Your task to perform on an android device: turn notification dots off Image 0: 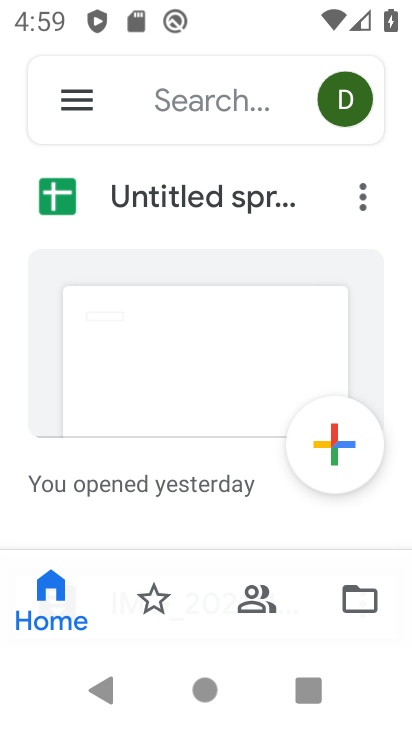
Step 0: press back button
Your task to perform on an android device: turn notification dots off Image 1: 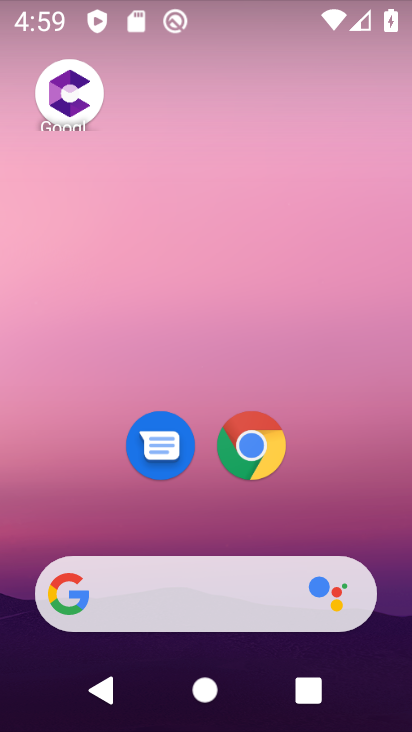
Step 1: drag from (286, 698) to (150, 46)
Your task to perform on an android device: turn notification dots off Image 2: 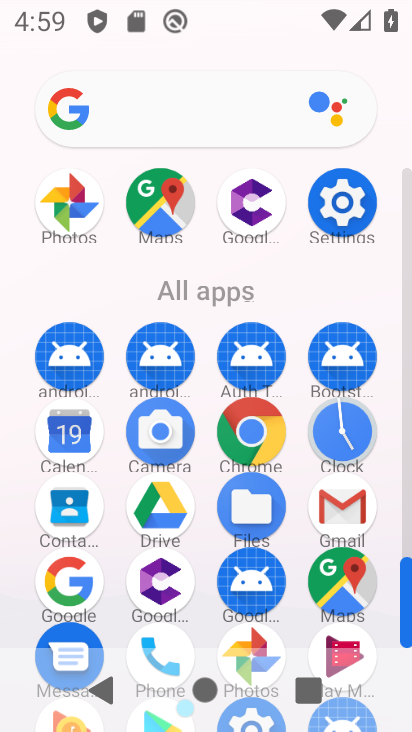
Step 2: click (347, 207)
Your task to perform on an android device: turn notification dots off Image 3: 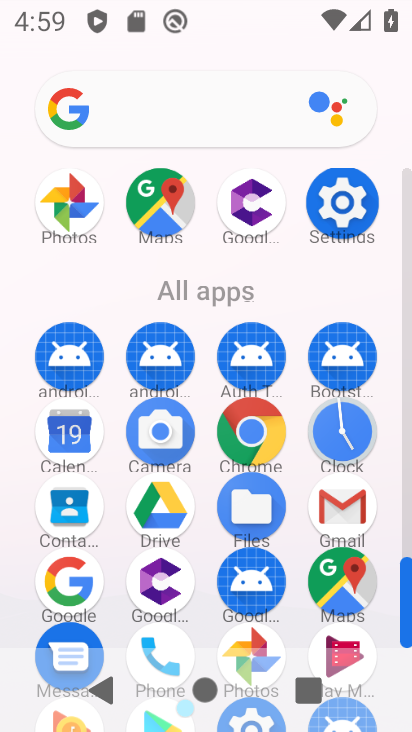
Step 3: click (347, 207)
Your task to perform on an android device: turn notification dots off Image 4: 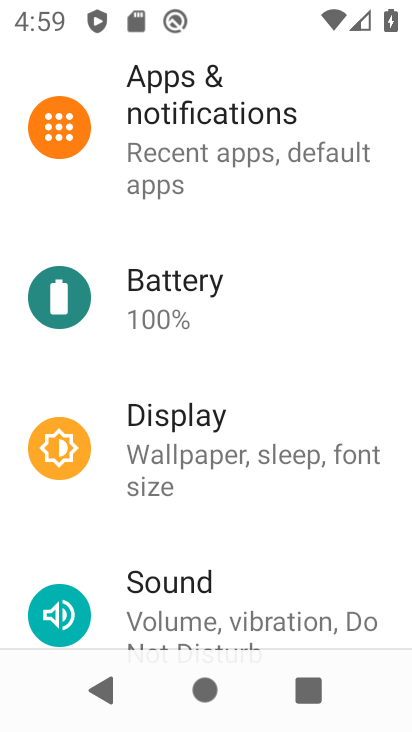
Step 4: click (346, 208)
Your task to perform on an android device: turn notification dots off Image 5: 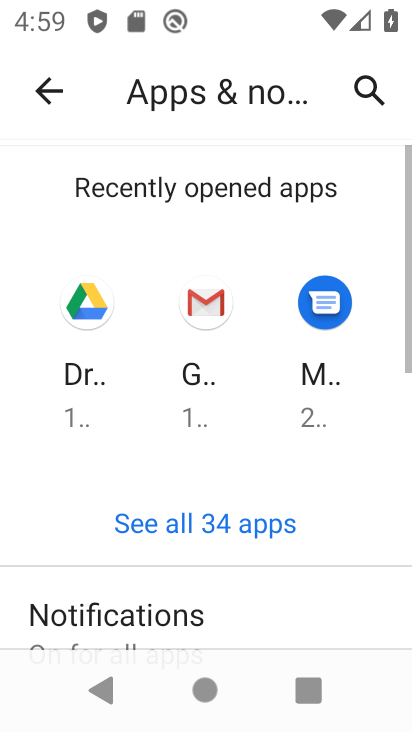
Step 5: click (47, 89)
Your task to perform on an android device: turn notification dots off Image 6: 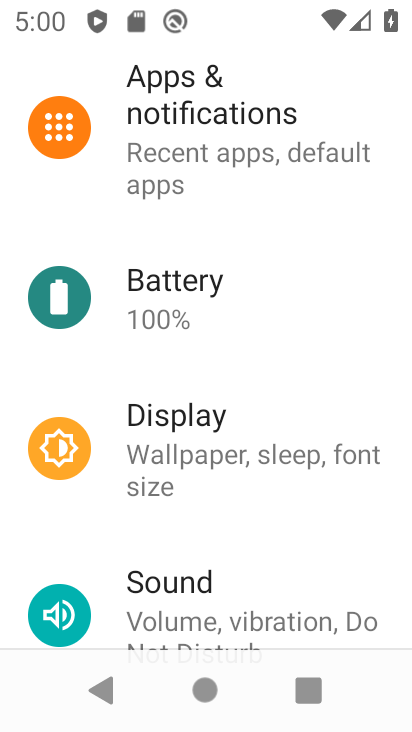
Step 6: drag from (177, 122) to (206, 656)
Your task to perform on an android device: turn notification dots off Image 7: 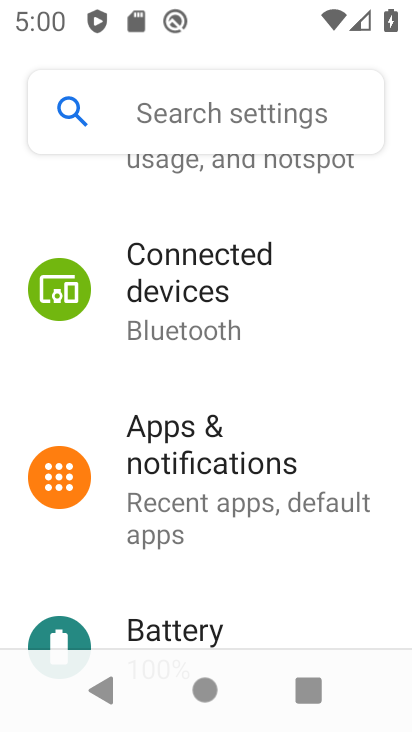
Step 7: click (184, 499)
Your task to perform on an android device: turn notification dots off Image 8: 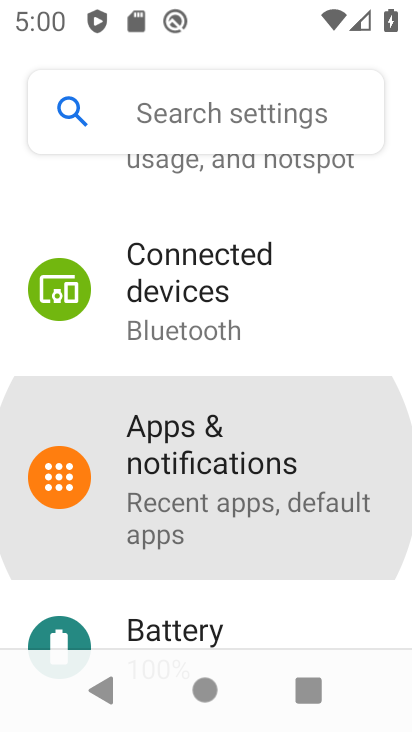
Step 8: click (184, 499)
Your task to perform on an android device: turn notification dots off Image 9: 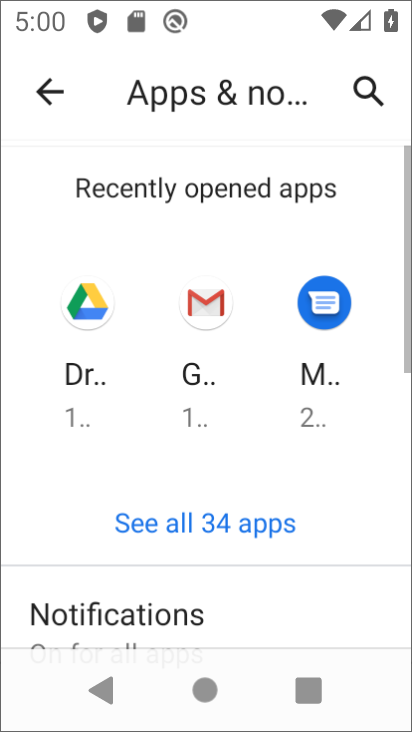
Step 9: click (184, 478)
Your task to perform on an android device: turn notification dots off Image 10: 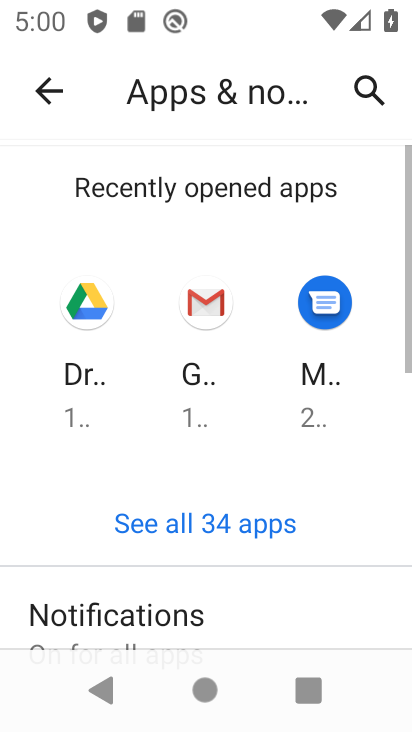
Step 10: drag from (144, 486) to (96, 122)
Your task to perform on an android device: turn notification dots off Image 11: 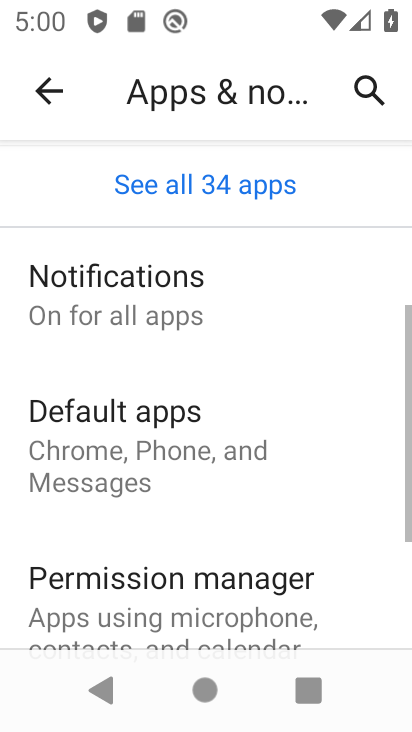
Step 11: drag from (126, 434) to (100, 75)
Your task to perform on an android device: turn notification dots off Image 12: 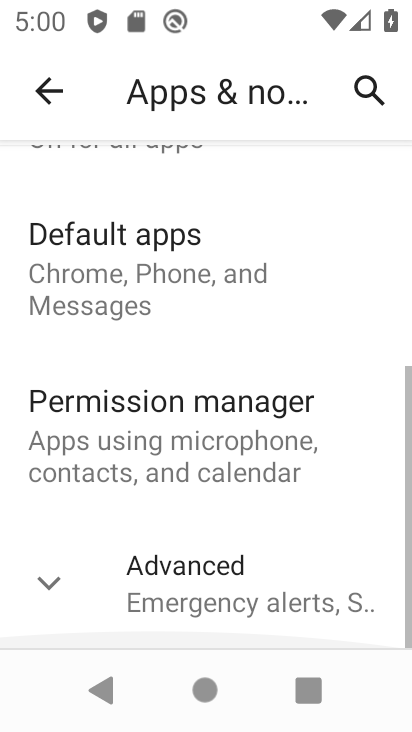
Step 12: drag from (159, 514) to (129, 198)
Your task to perform on an android device: turn notification dots off Image 13: 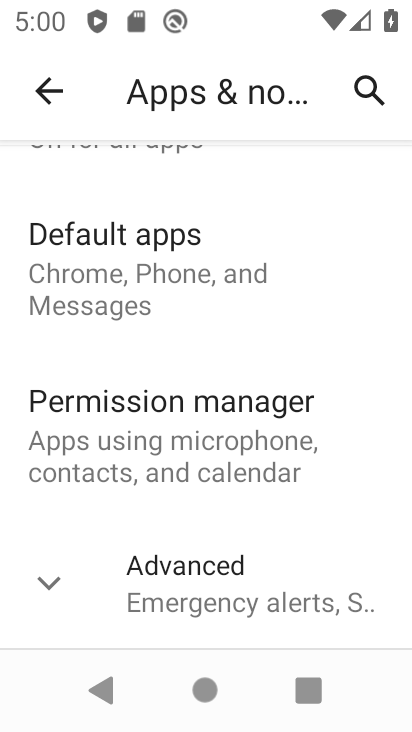
Step 13: drag from (187, 326) to (223, 523)
Your task to perform on an android device: turn notification dots off Image 14: 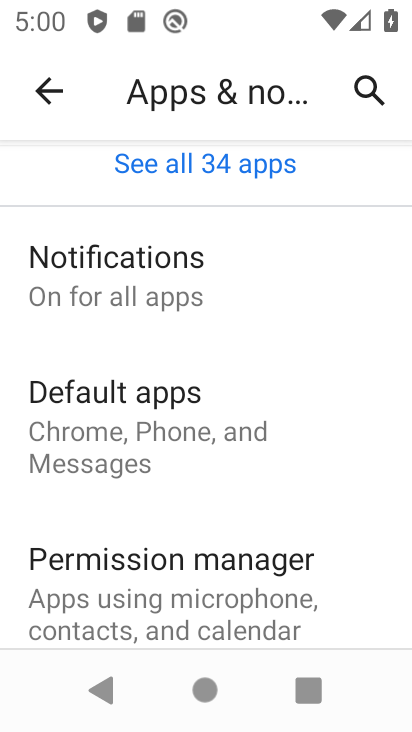
Step 14: click (119, 291)
Your task to perform on an android device: turn notification dots off Image 15: 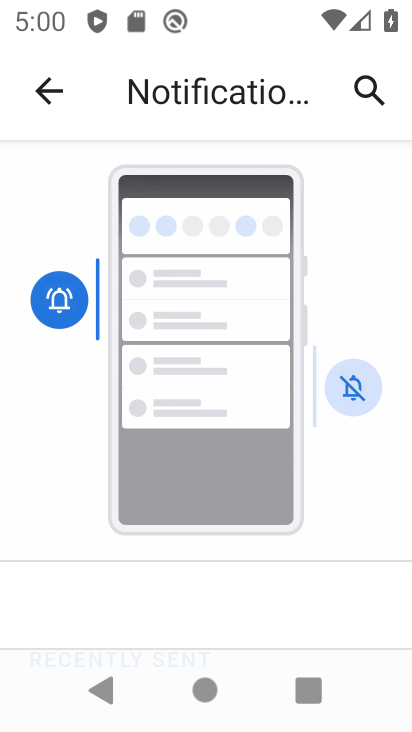
Step 15: drag from (217, 479) to (141, 95)
Your task to perform on an android device: turn notification dots off Image 16: 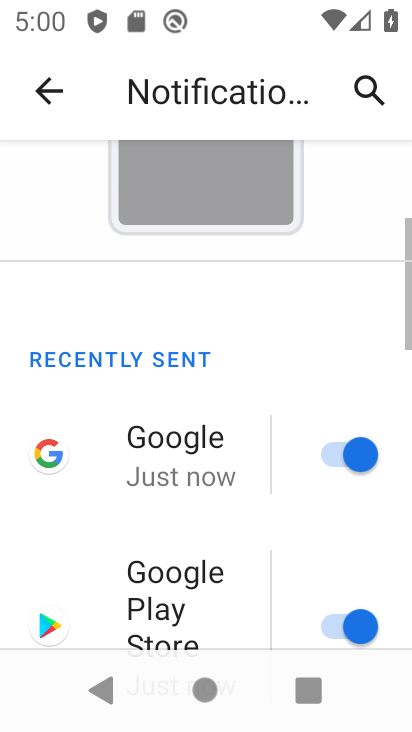
Step 16: drag from (202, 490) to (192, 197)
Your task to perform on an android device: turn notification dots off Image 17: 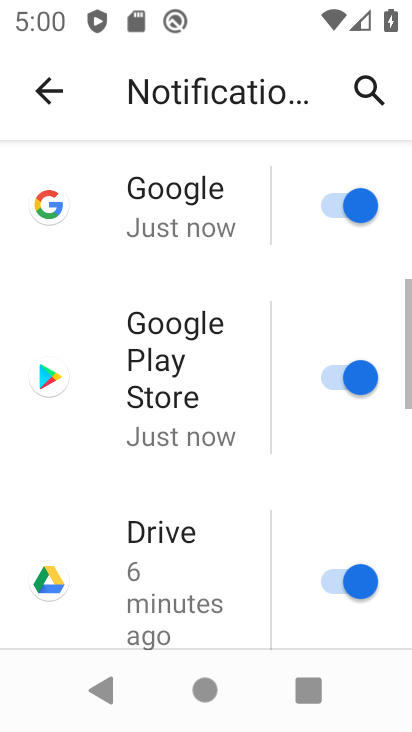
Step 17: drag from (193, 499) to (165, 173)
Your task to perform on an android device: turn notification dots off Image 18: 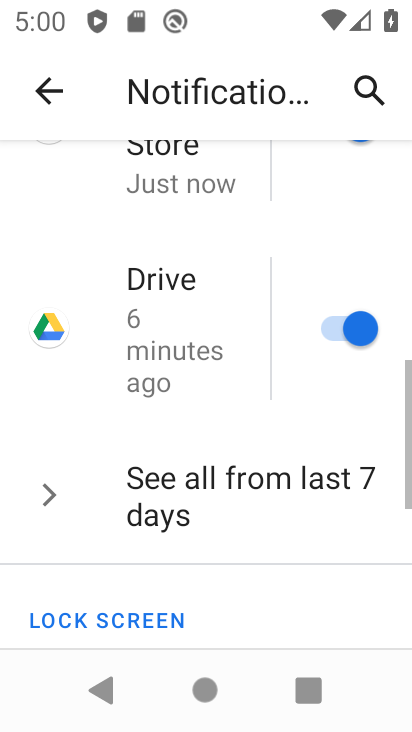
Step 18: drag from (222, 527) to (199, 209)
Your task to perform on an android device: turn notification dots off Image 19: 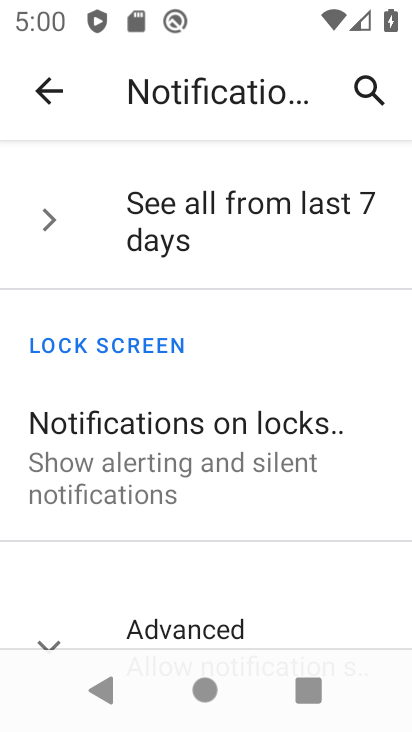
Step 19: drag from (133, 532) to (199, 32)
Your task to perform on an android device: turn notification dots off Image 20: 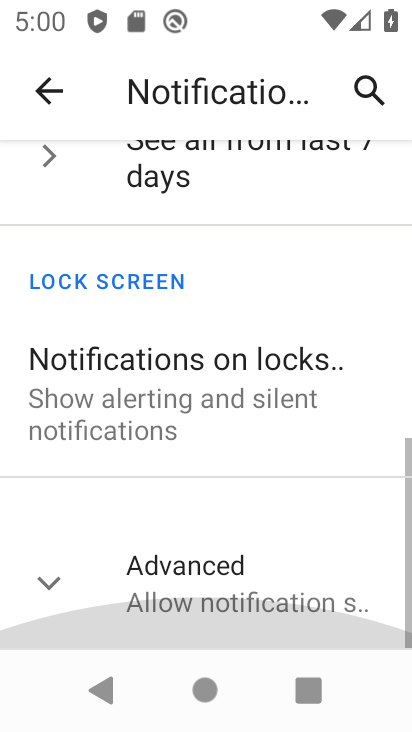
Step 20: drag from (225, 501) to (196, 89)
Your task to perform on an android device: turn notification dots off Image 21: 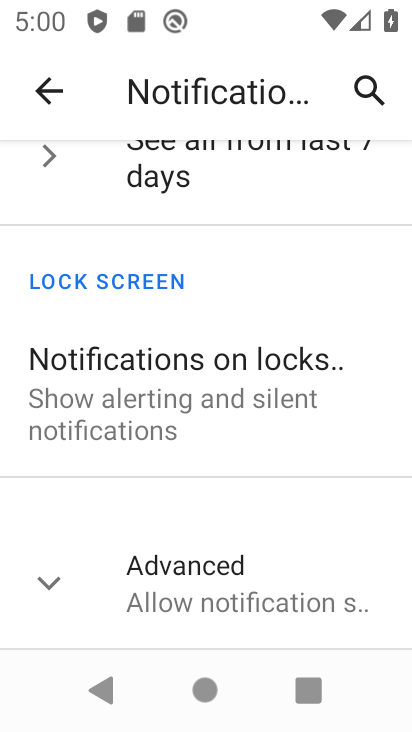
Step 21: click (212, 608)
Your task to perform on an android device: turn notification dots off Image 22: 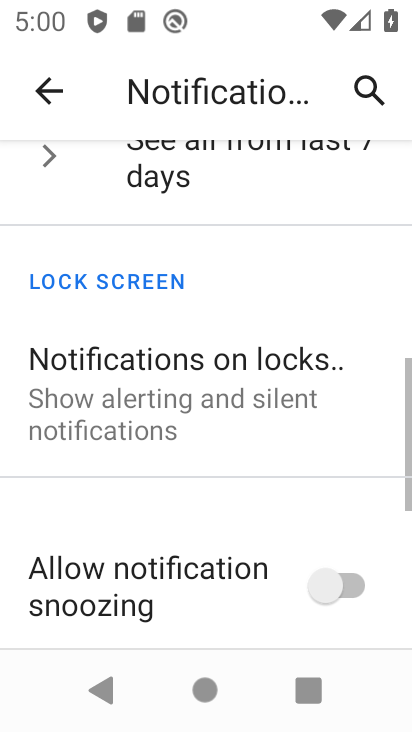
Step 22: drag from (224, 549) to (199, 179)
Your task to perform on an android device: turn notification dots off Image 23: 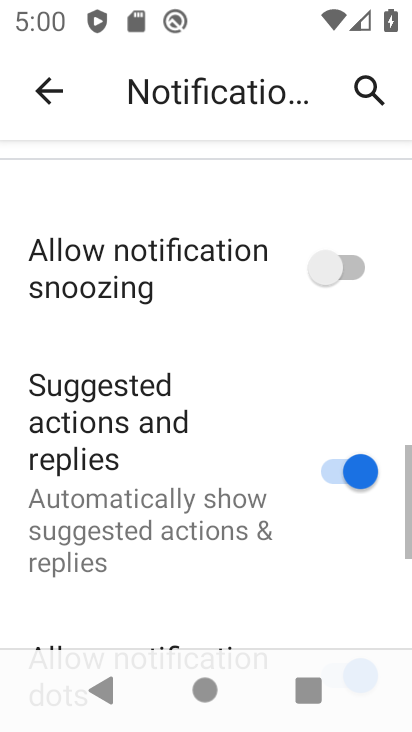
Step 23: drag from (229, 474) to (196, 139)
Your task to perform on an android device: turn notification dots off Image 24: 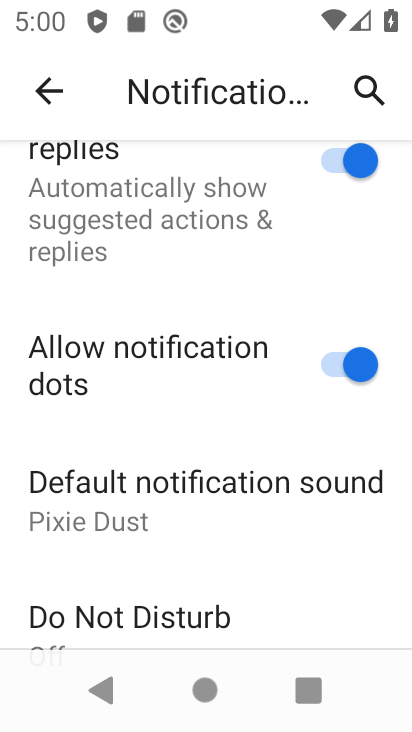
Step 24: click (357, 347)
Your task to perform on an android device: turn notification dots off Image 25: 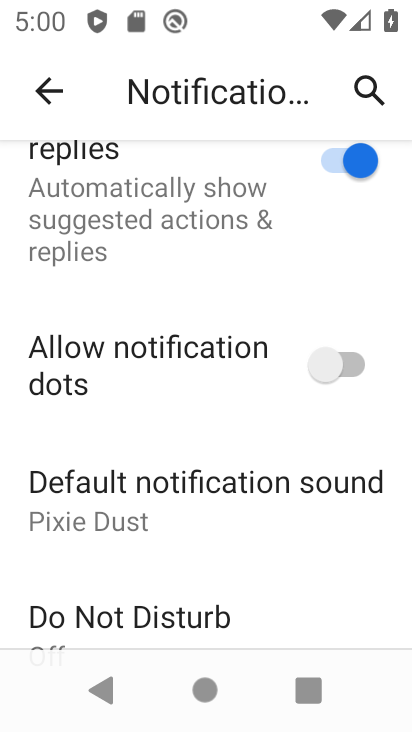
Step 25: task complete